Your task to perform on an android device: open a new tab in the chrome app Image 0: 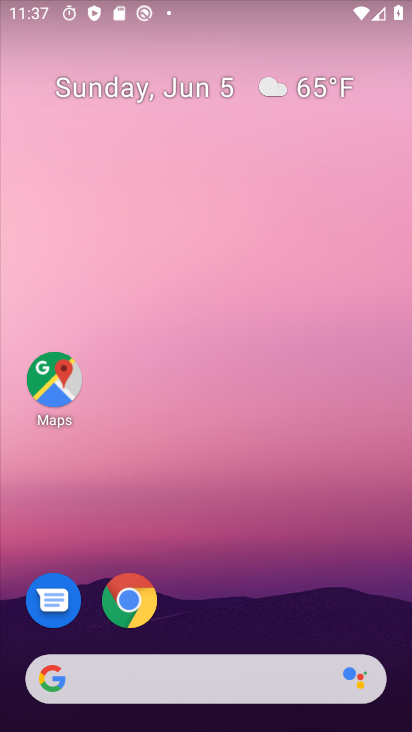
Step 0: drag from (239, 132) to (216, 181)
Your task to perform on an android device: open a new tab in the chrome app Image 1: 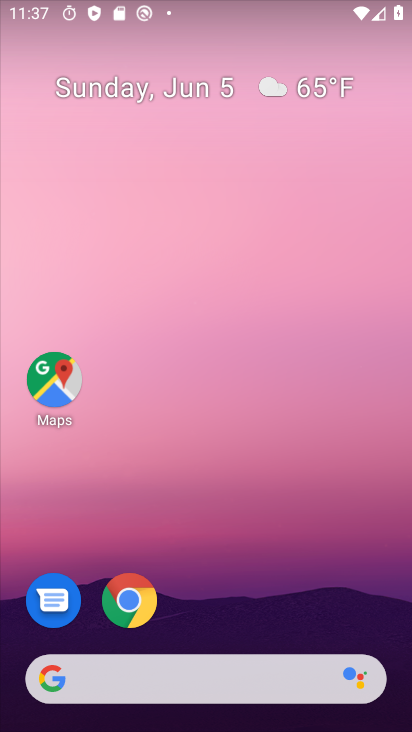
Step 1: drag from (211, 629) to (161, 229)
Your task to perform on an android device: open a new tab in the chrome app Image 2: 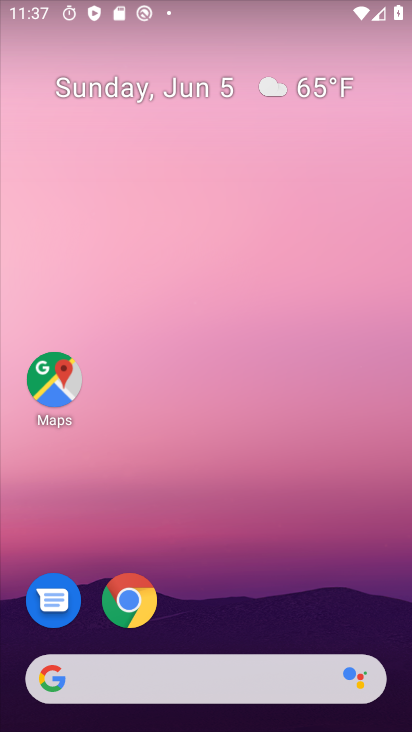
Step 2: drag from (123, 582) to (171, 122)
Your task to perform on an android device: open a new tab in the chrome app Image 3: 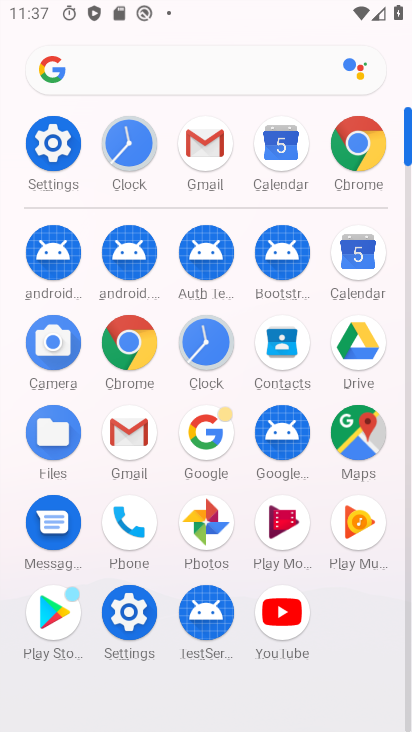
Step 3: click (372, 132)
Your task to perform on an android device: open a new tab in the chrome app Image 4: 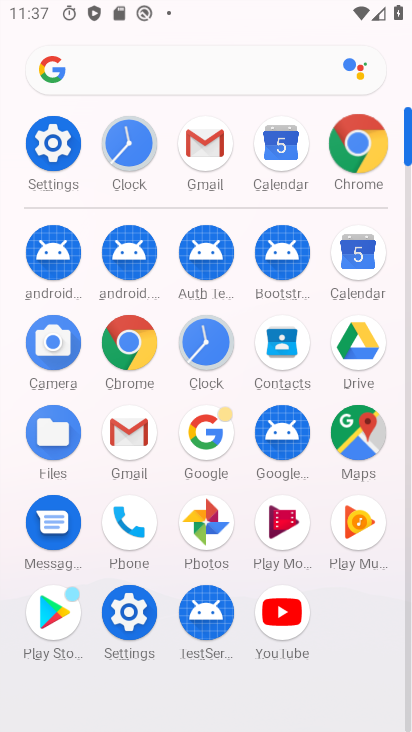
Step 4: click (369, 133)
Your task to perform on an android device: open a new tab in the chrome app Image 5: 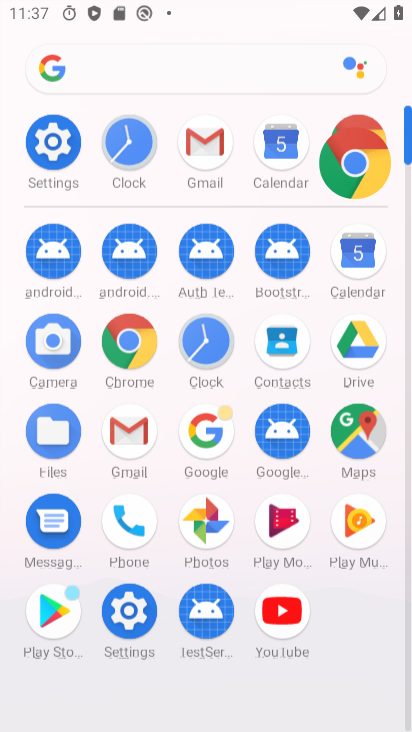
Step 5: click (369, 133)
Your task to perform on an android device: open a new tab in the chrome app Image 6: 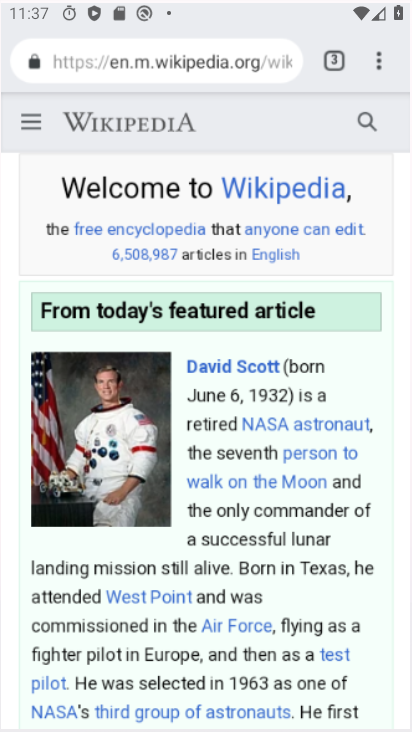
Step 6: click (369, 133)
Your task to perform on an android device: open a new tab in the chrome app Image 7: 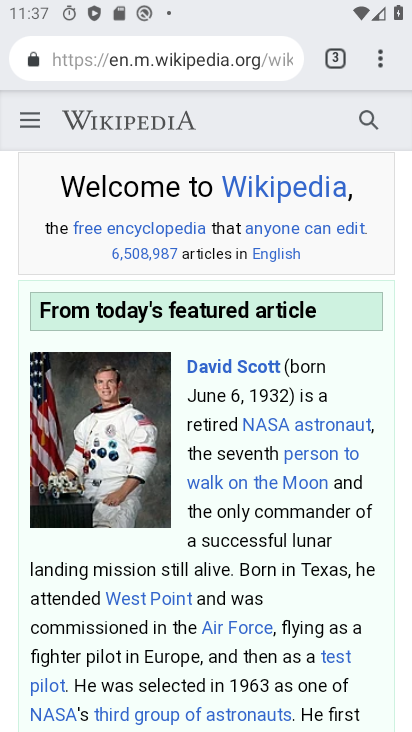
Step 7: task complete